Your task to perform on an android device: Open Google Maps and go to "Timeline" Image 0: 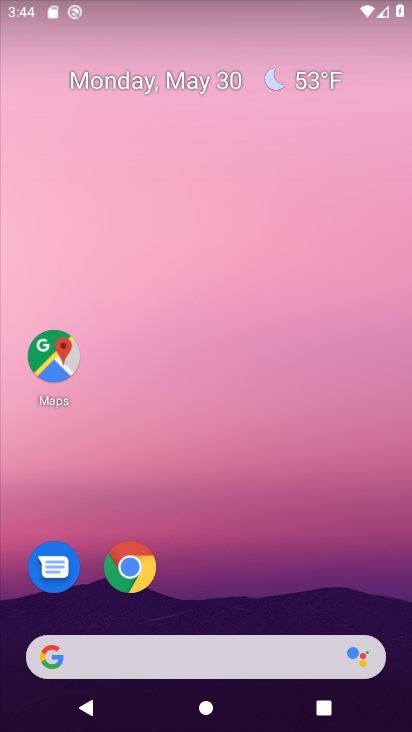
Step 0: click (396, 585)
Your task to perform on an android device: Open Google Maps and go to "Timeline" Image 1: 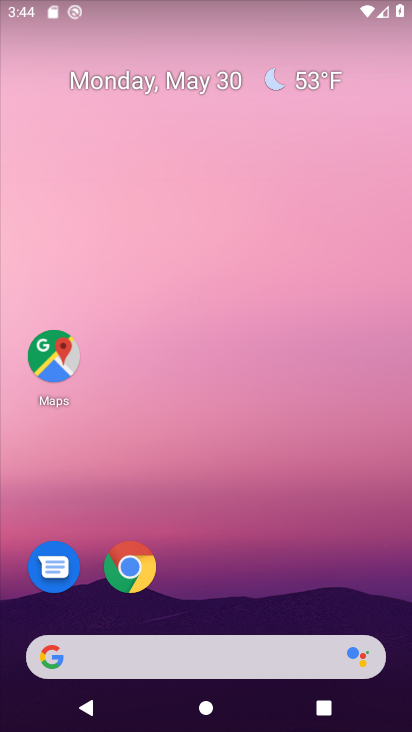
Step 1: drag from (185, 595) to (376, 7)
Your task to perform on an android device: Open Google Maps and go to "Timeline" Image 2: 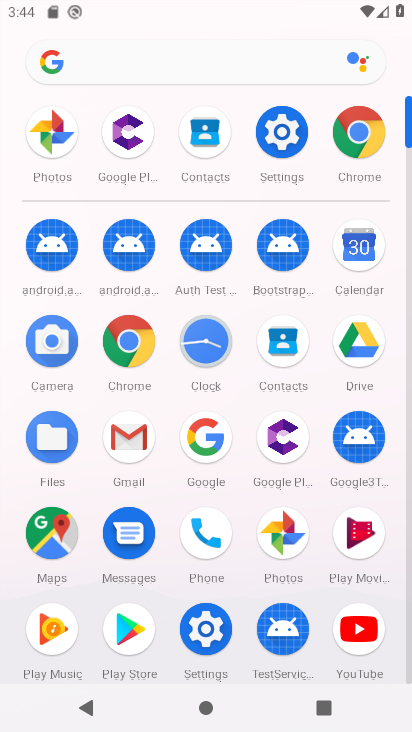
Step 2: click (50, 542)
Your task to perform on an android device: Open Google Maps and go to "Timeline" Image 3: 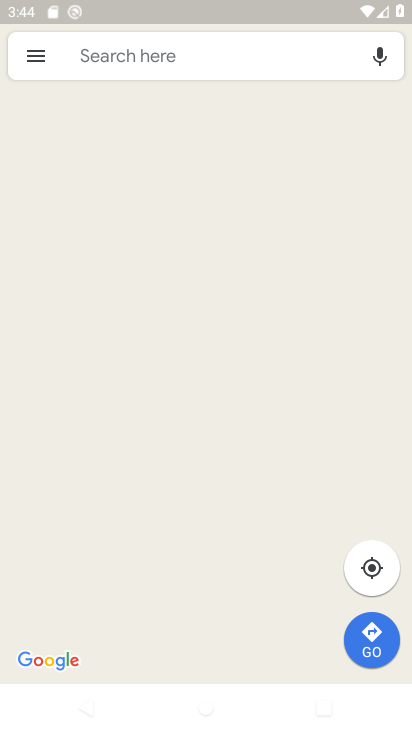
Step 3: click (22, 48)
Your task to perform on an android device: Open Google Maps and go to "Timeline" Image 4: 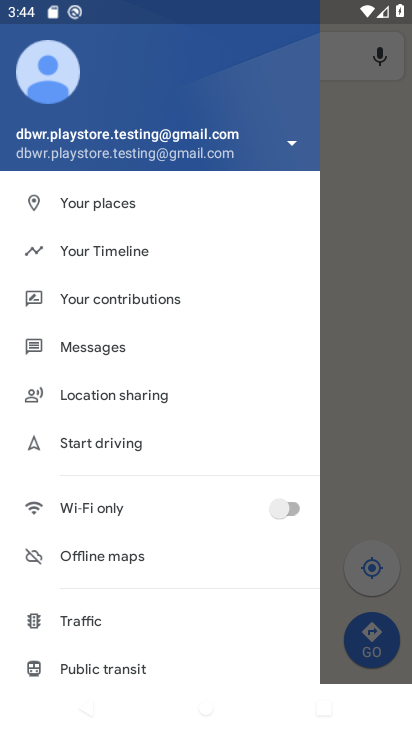
Step 4: click (107, 255)
Your task to perform on an android device: Open Google Maps and go to "Timeline" Image 5: 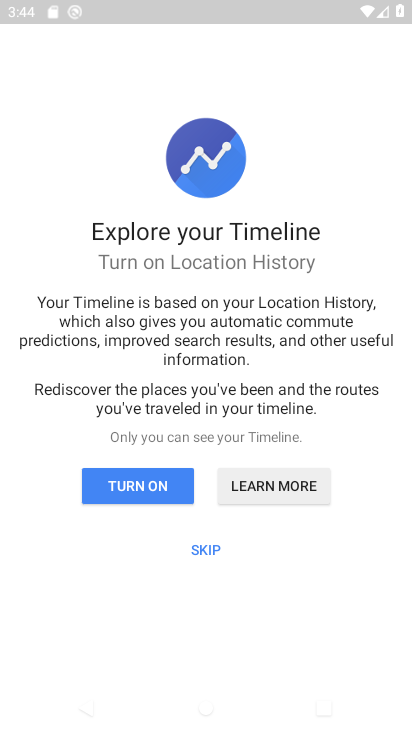
Step 5: task complete